Your task to perform on an android device: Do I have any events tomorrow? Image 0: 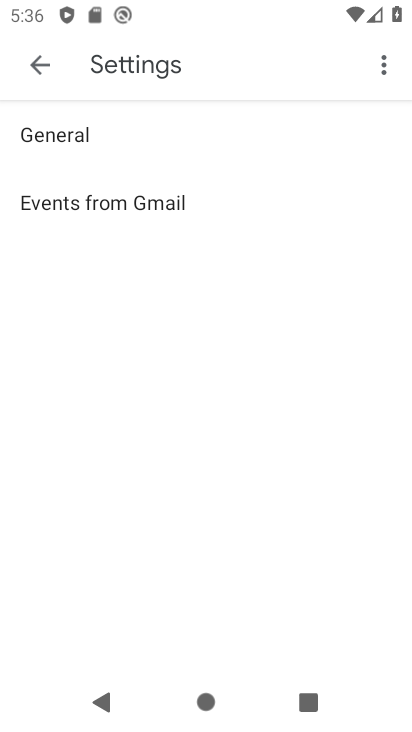
Step 0: press home button
Your task to perform on an android device: Do I have any events tomorrow? Image 1: 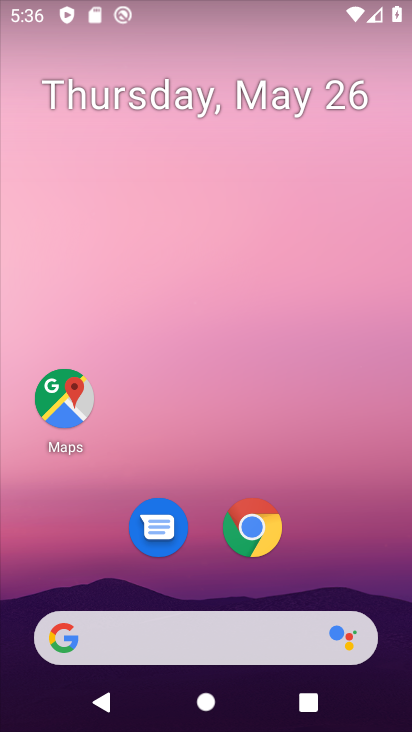
Step 1: drag from (200, 590) to (208, 221)
Your task to perform on an android device: Do I have any events tomorrow? Image 2: 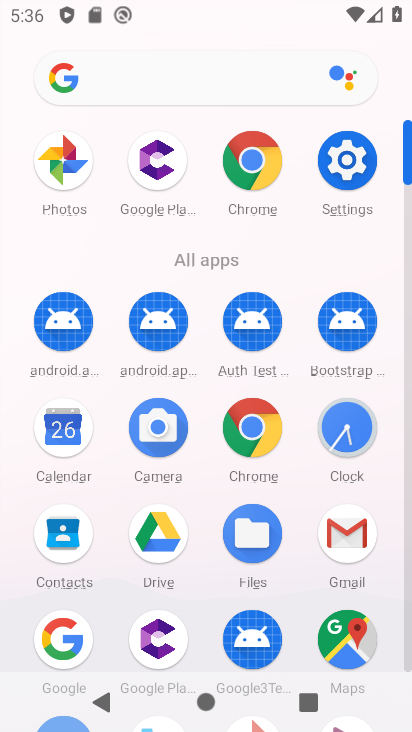
Step 2: click (64, 431)
Your task to perform on an android device: Do I have any events tomorrow? Image 3: 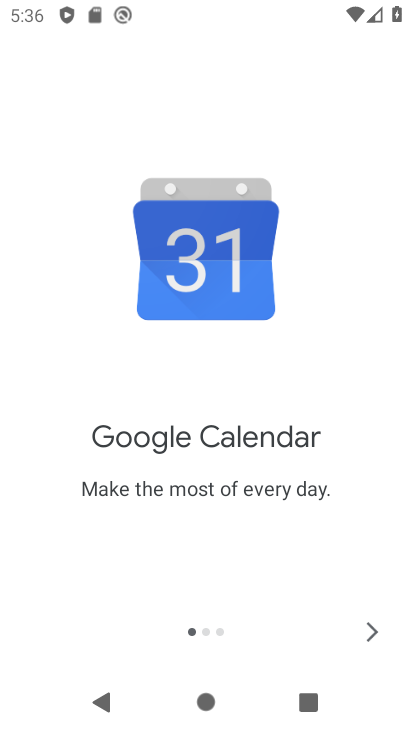
Step 3: click (362, 640)
Your task to perform on an android device: Do I have any events tomorrow? Image 4: 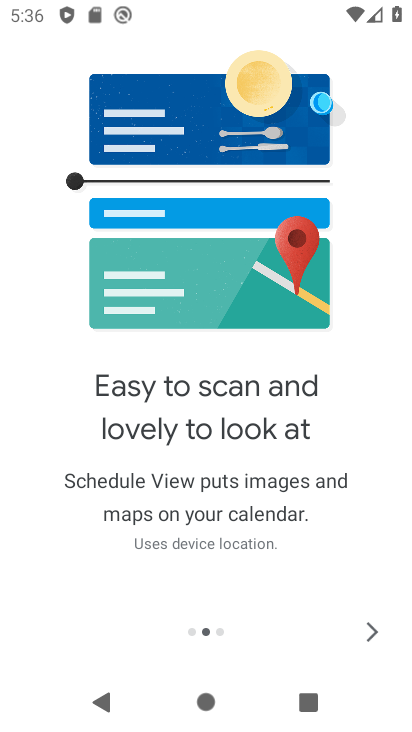
Step 4: click (362, 640)
Your task to perform on an android device: Do I have any events tomorrow? Image 5: 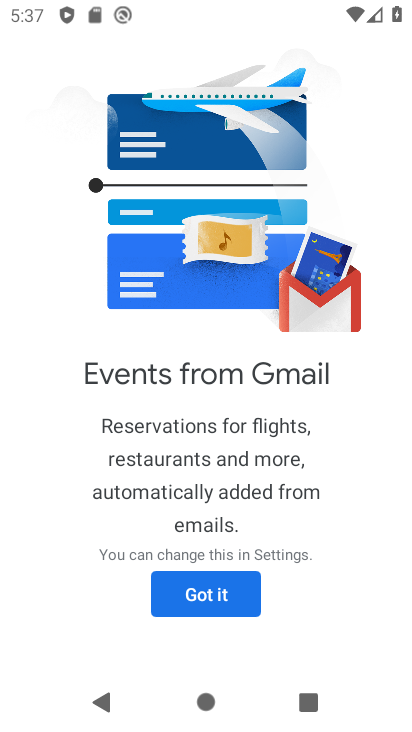
Step 5: click (234, 599)
Your task to perform on an android device: Do I have any events tomorrow? Image 6: 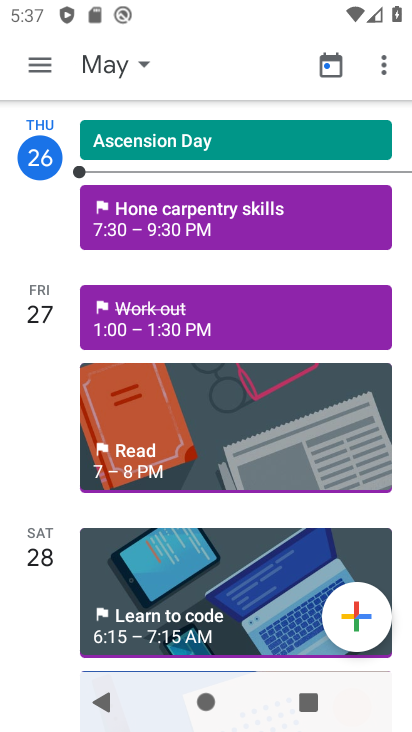
Step 6: click (114, 65)
Your task to perform on an android device: Do I have any events tomorrow? Image 7: 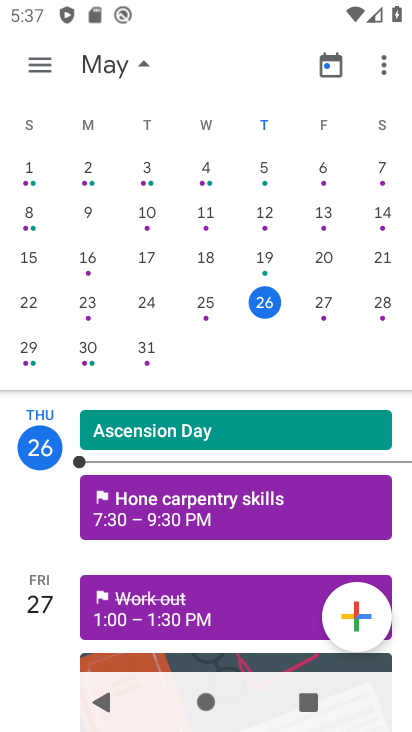
Step 7: click (326, 300)
Your task to perform on an android device: Do I have any events tomorrow? Image 8: 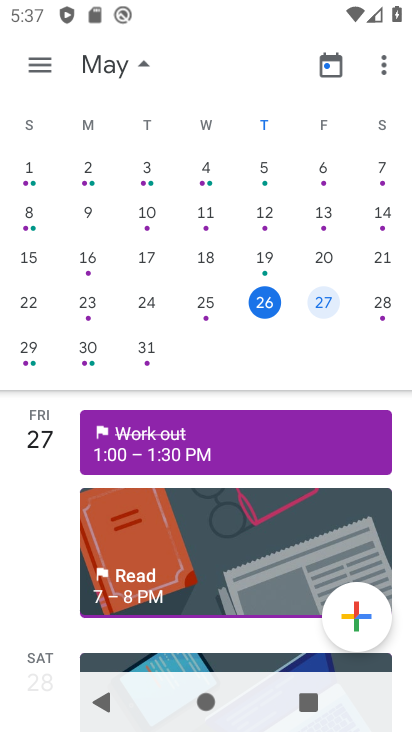
Step 8: task complete